Your task to perform on an android device: Open settings Image 0: 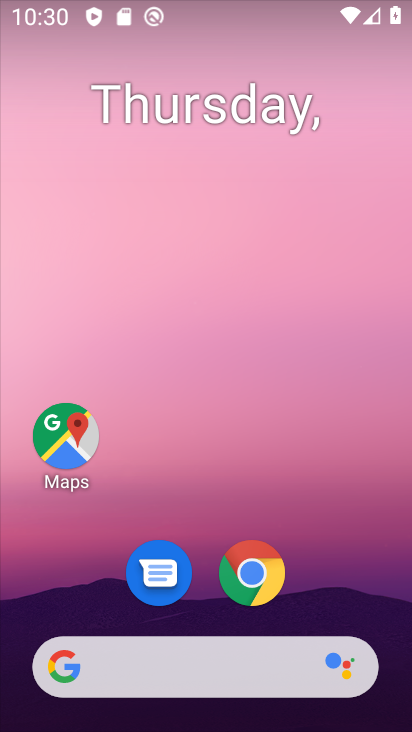
Step 0: drag from (314, 588) to (300, 144)
Your task to perform on an android device: Open settings Image 1: 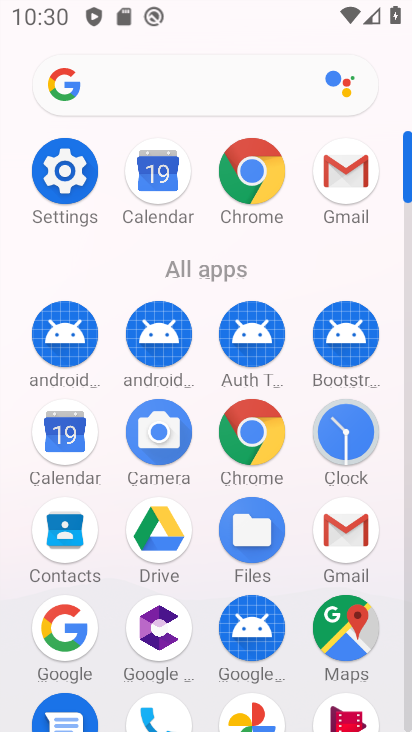
Step 1: click (67, 156)
Your task to perform on an android device: Open settings Image 2: 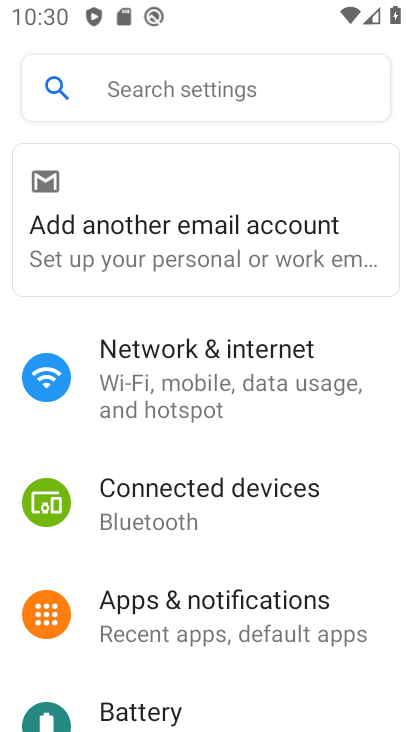
Step 2: task complete